Your task to perform on an android device: Go to location settings Image 0: 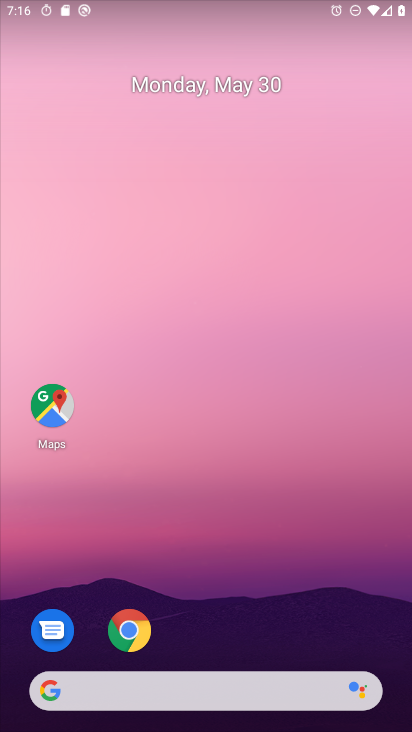
Step 0: drag from (392, 648) to (302, 65)
Your task to perform on an android device: Go to location settings Image 1: 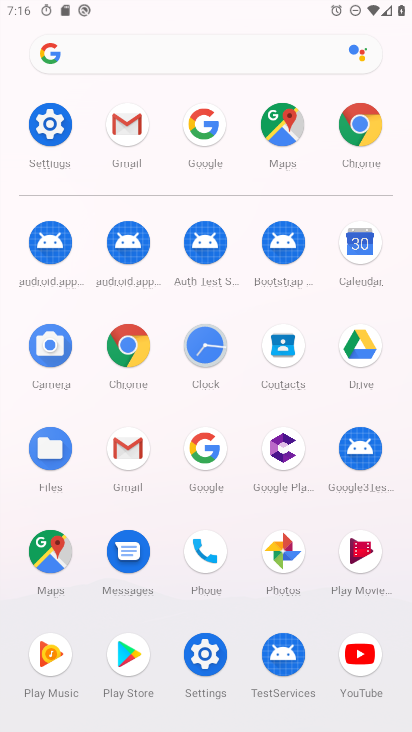
Step 1: click (17, 104)
Your task to perform on an android device: Go to location settings Image 2: 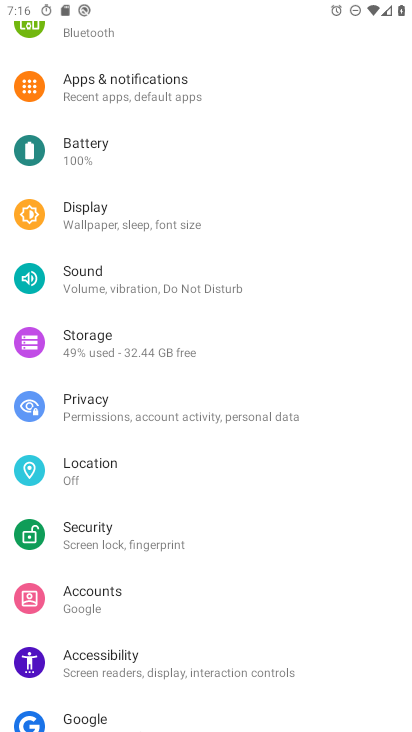
Step 2: click (134, 464)
Your task to perform on an android device: Go to location settings Image 3: 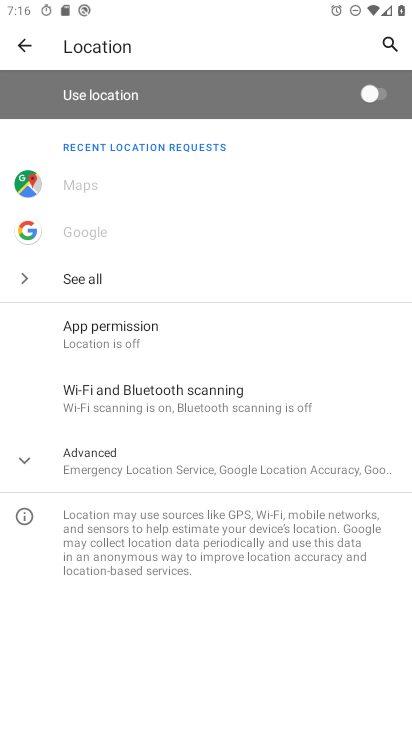
Step 3: task complete